Your task to perform on an android device: turn off location history Image 0: 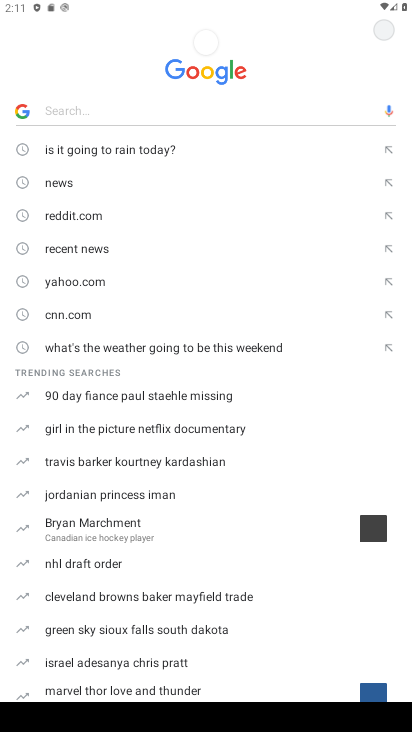
Step 0: press home button
Your task to perform on an android device: turn off location history Image 1: 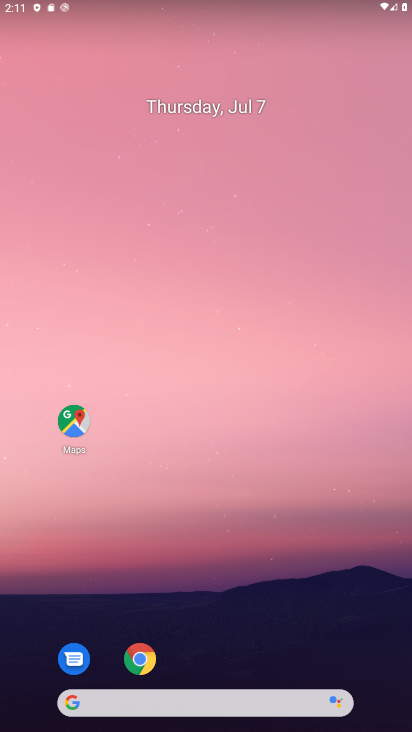
Step 1: drag from (213, 665) to (211, 9)
Your task to perform on an android device: turn off location history Image 2: 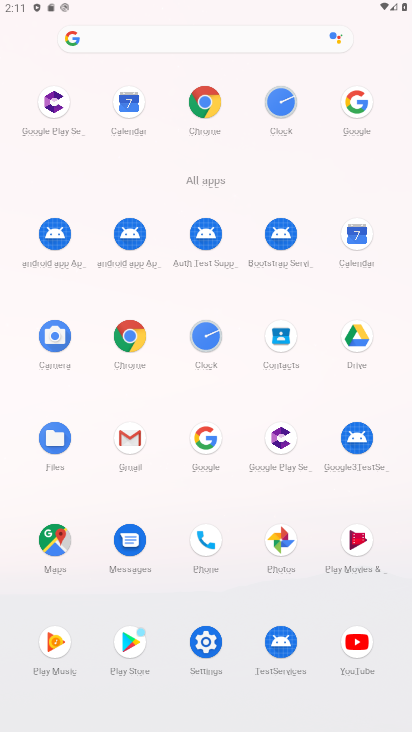
Step 2: drag from (245, 610) to (232, 102)
Your task to perform on an android device: turn off location history Image 3: 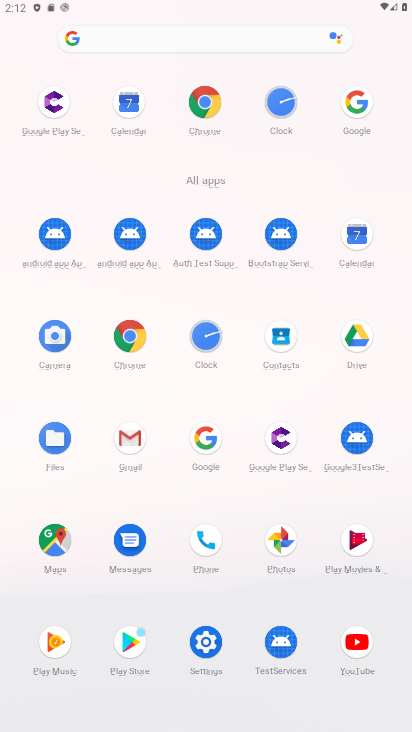
Step 3: click (203, 634)
Your task to perform on an android device: turn off location history Image 4: 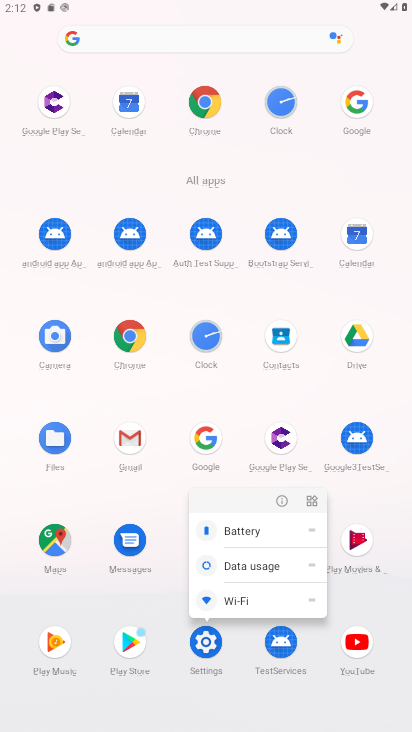
Step 4: click (203, 634)
Your task to perform on an android device: turn off location history Image 5: 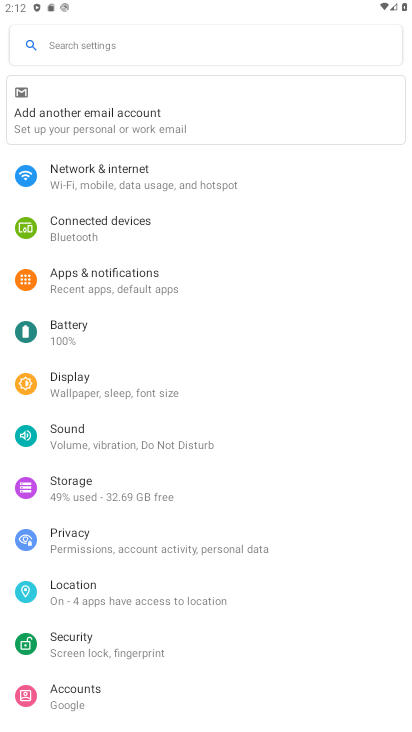
Step 5: click (107, 585)
Your task to perform on an android device: turn off location history Image 6: 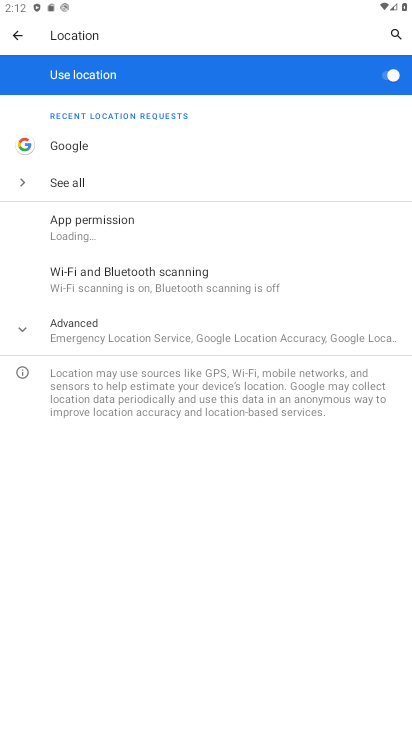
Step 6: click (30, 325)
Your task to perform on an android device: turn off location history Image 7: 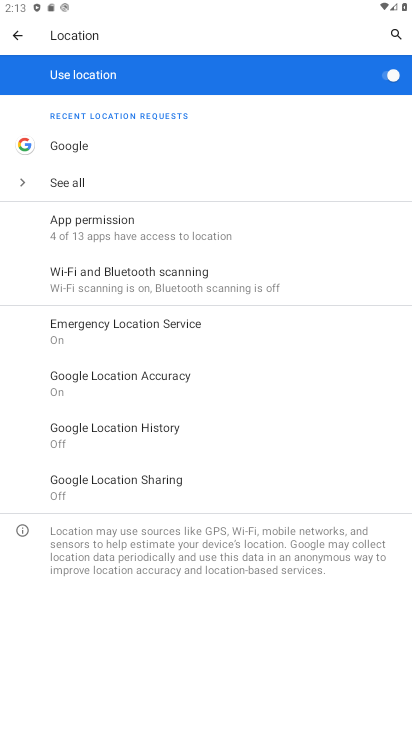
Step 7: task complete